Your task to perform on an android device: Open Amazon Image 0: 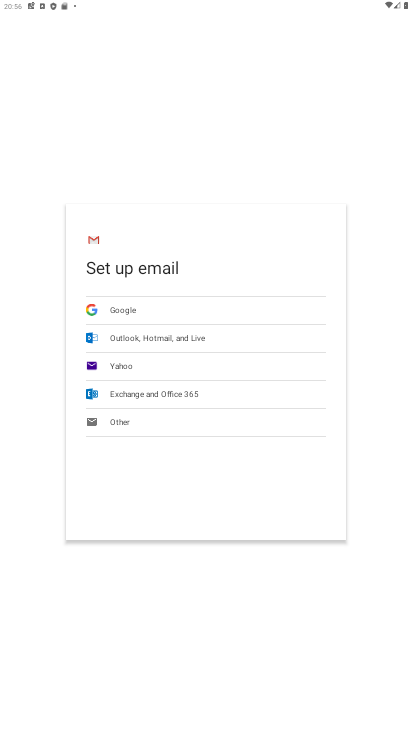
Step 0: press home button
Your task to perform on an android device: Open Amazon Image 1: 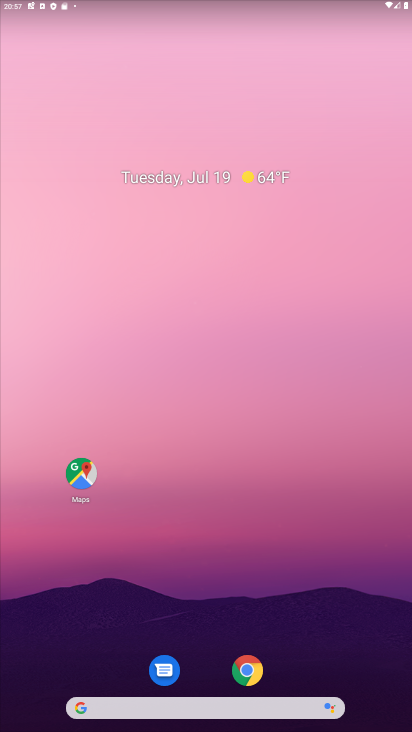
Step 1: click (250, 678)
Your task to perform on an android device: Open Amazon Image 2: 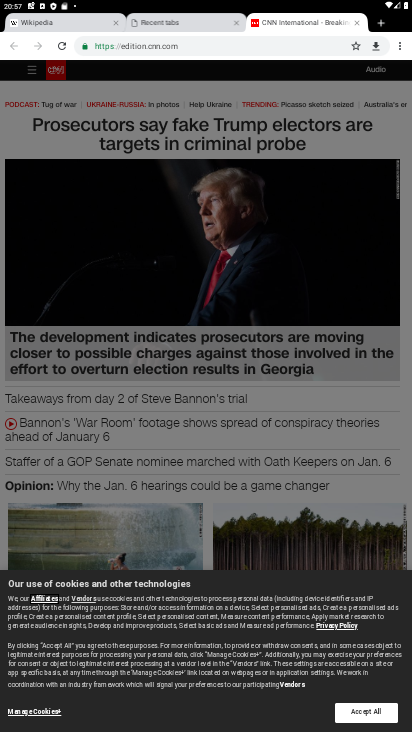
Step 2: click (381, 25)
Your task to perform on an android device: Open Amazon Image 3: 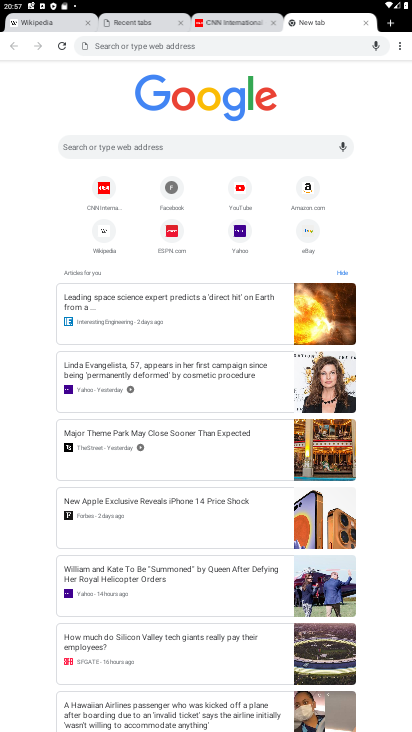
Step 3: click (308, 192)
Your task to perform on an android device: Open Amazon Image 4: 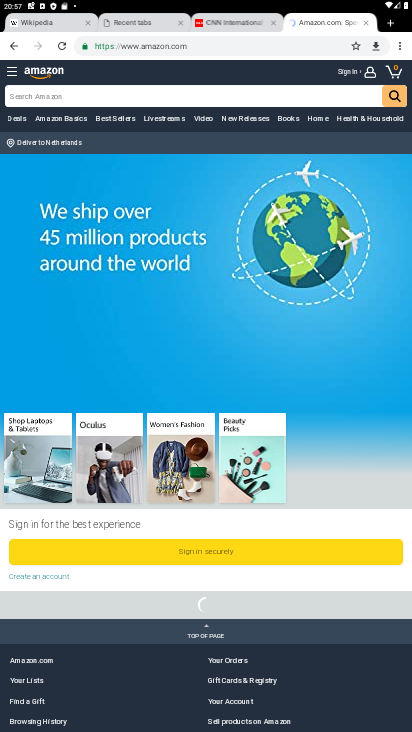
Step 4: task complete